Your task to perform on an android device: Open Maps and search for coffee Image 0: 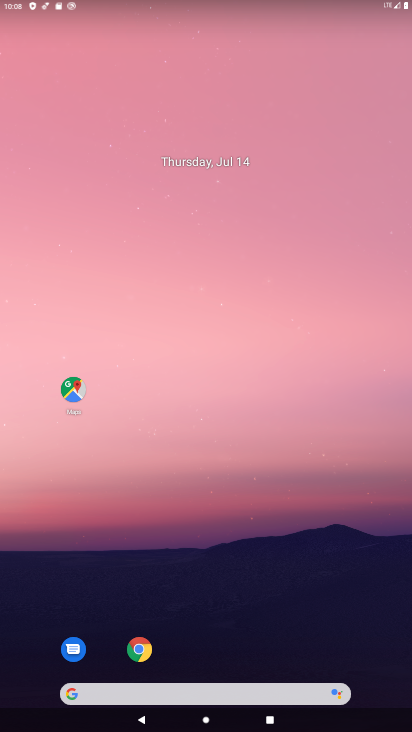
Step 0: click (78, 394)
Your task to perform on an android device: Open Maps and search for coffee Image 1: 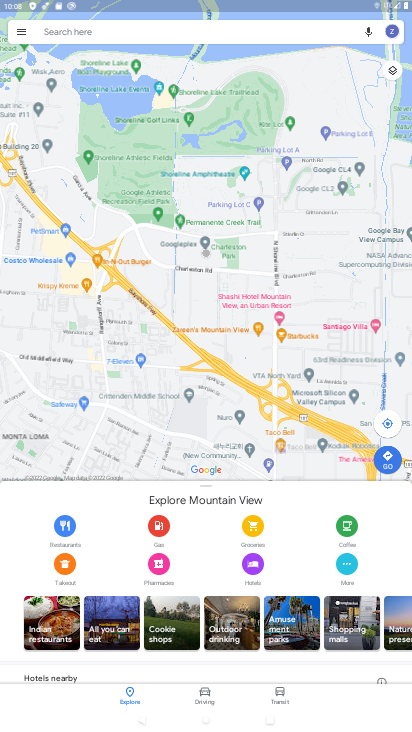
Step 1: click (129, 44)
Your task to perform on an android device: Open Maps and search for coffee Image 2: 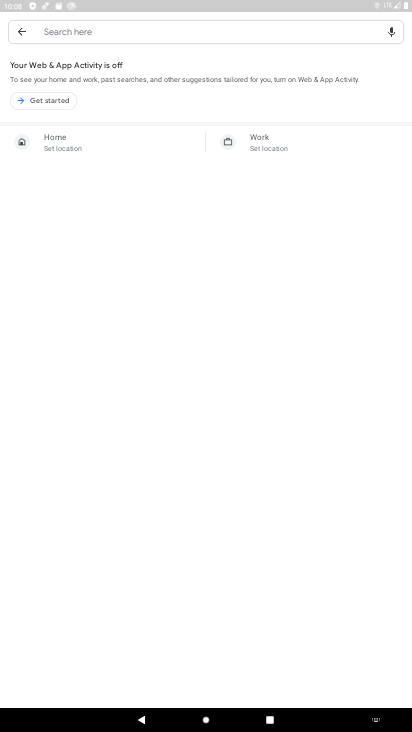
Step 2: type "coffee"
Your task to perform on an android device: Open Maps and search for coffee Image 3: 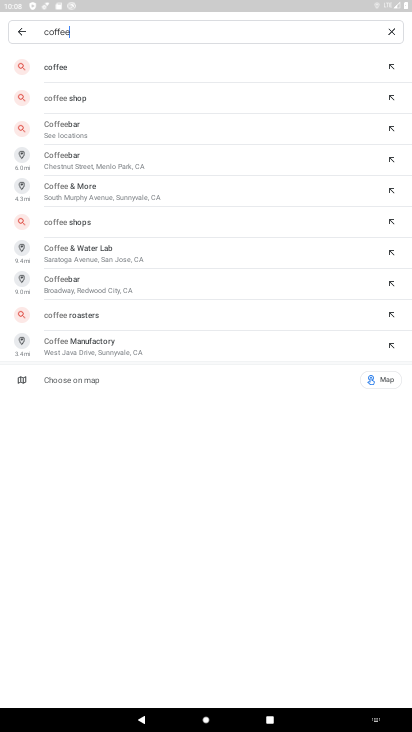
Step 3: click (82, 68)
Your task to perform on an android device: Open Maps and search for coffee Image 4: 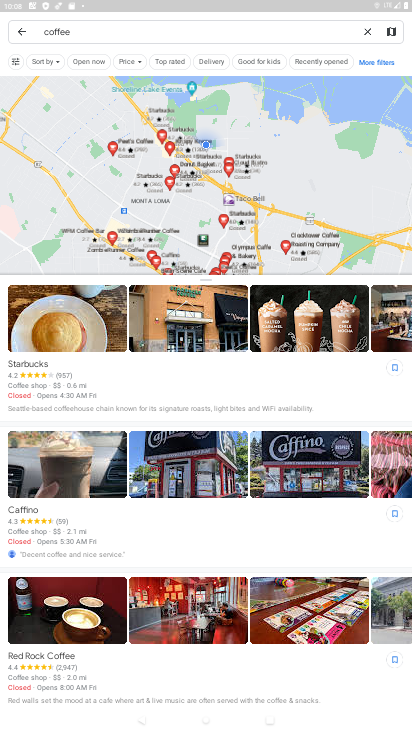
Step 4: task complete